Your task to perform on an android device: Find coffee shops on Maps Image 0: 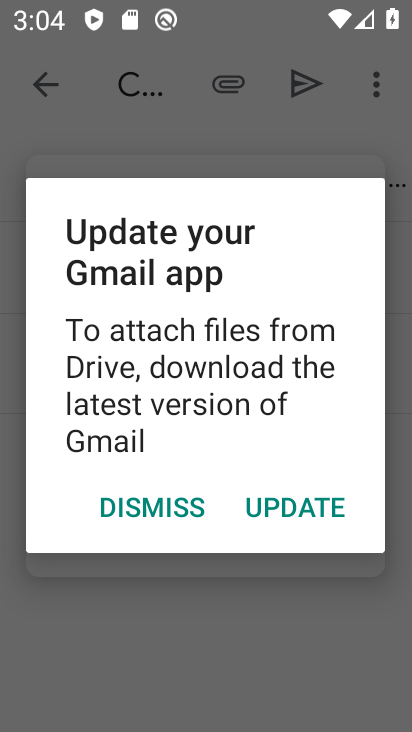
Step 0: press home button
Your task to perform on an android device: Find coffee shops on Maps Image 1: 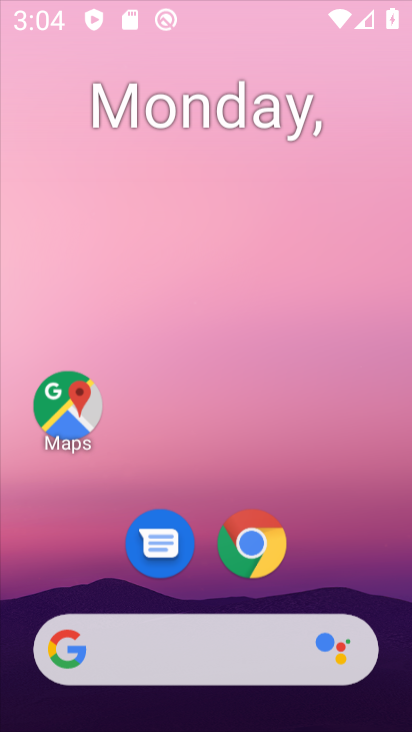
Step 1: press back button
Your task to perform on an android device: Find coffee shops on Maps Image 2: 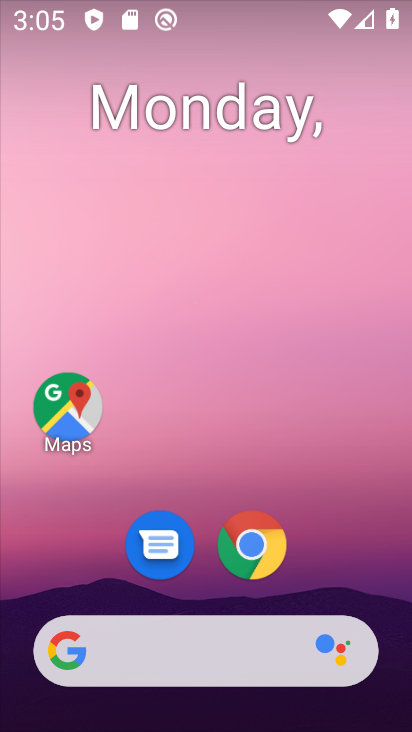
Step 2: click (69, 400)
Your task to perform on an android device: Find coffee shops on Maps Image 3: 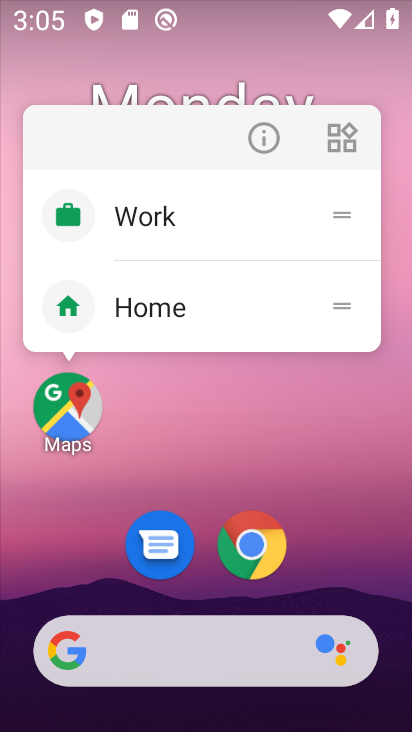
Step 3: click (58, 402)
Your task to perform on an android device: Find coffee shops on Maps Image 4: 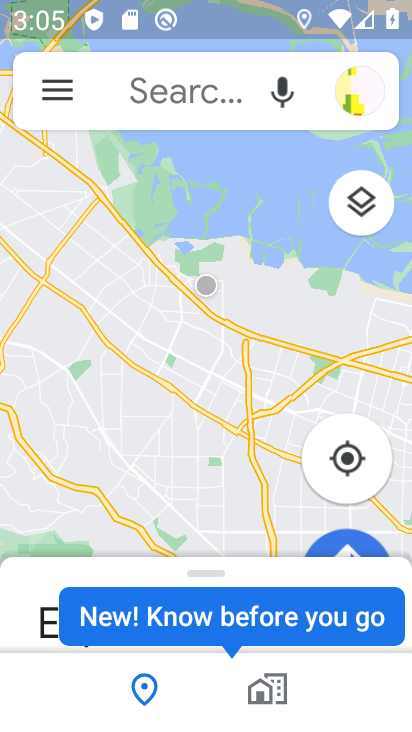
Step 4: click (168, 87)
Your task to perform on an android device: Find coffee shops on Maps Image 5: 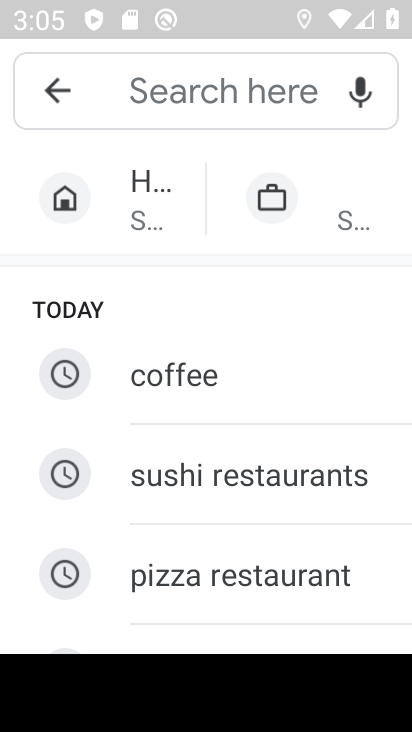
Step 5: click (236, 385)
Your task to perform on an android device: Find coffee shops on Maps Image 6: 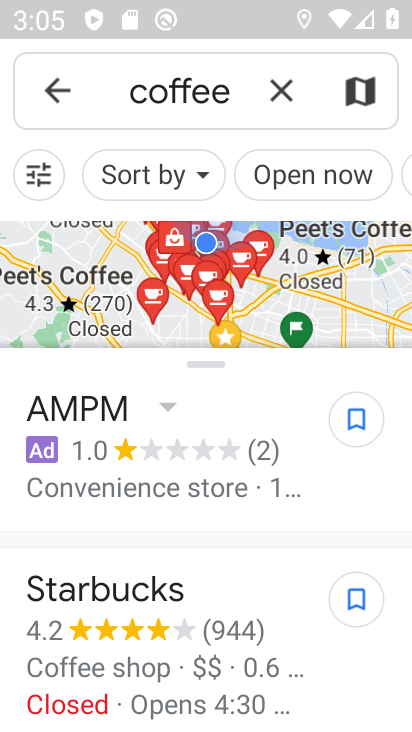
Step 6: task complete